Your task to perform on an android device: toggle location history Image 0: 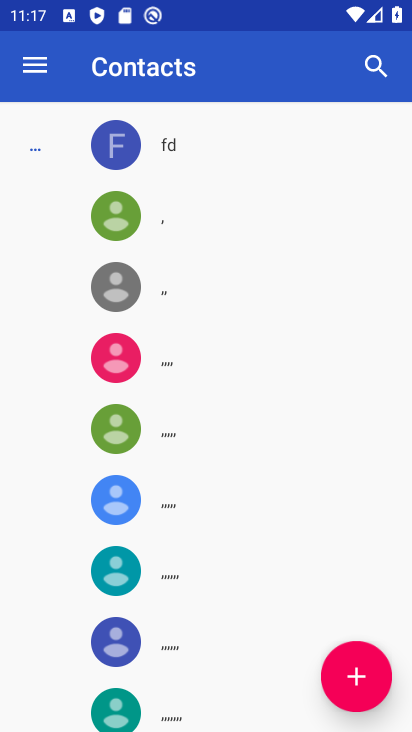
Step 0: press home button
Your task to perform on an android device: toggle location history Image 1: 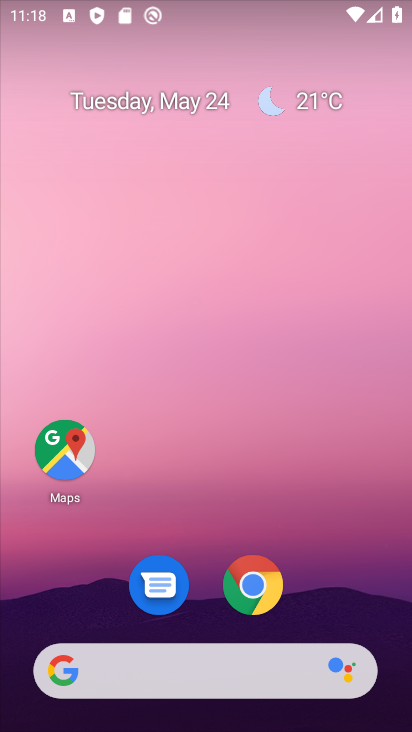
Step 1: drag from (206, 518) to (215, 10)
Your task to perform on an android device: toggle location history Image 2: 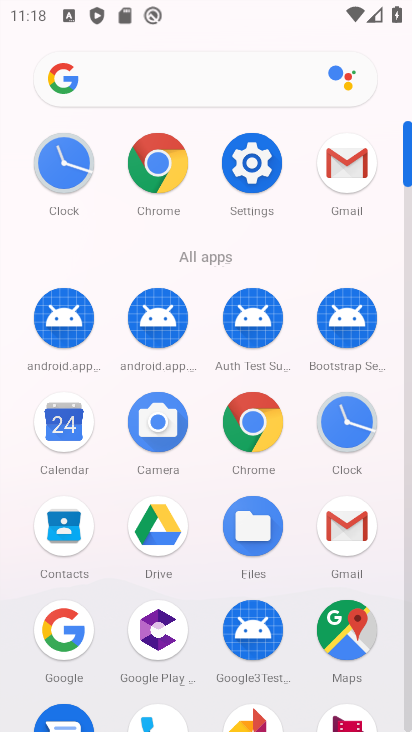
Step 2: click (256, 153)
Your task to perform on an android device: toggle location history Image 3: 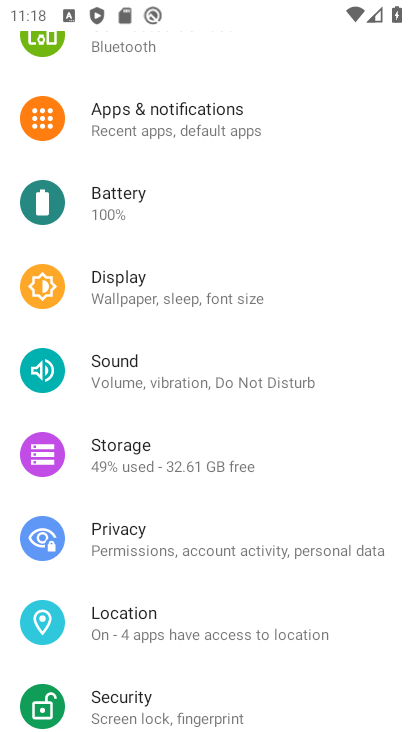
Step 3: click (211, 622)
Your task to perform on an android device: toggle location history Image 4: 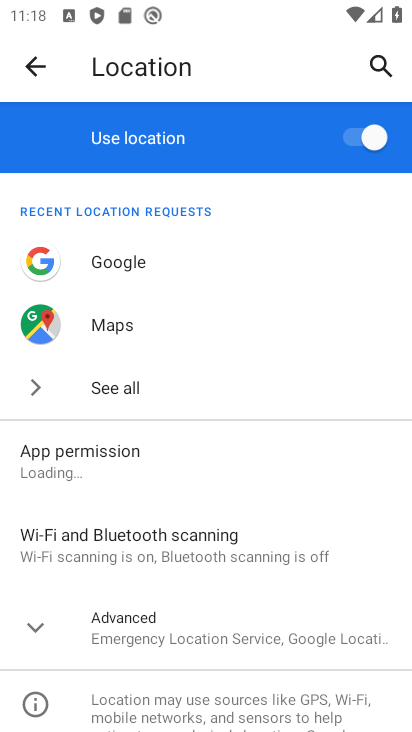
Step 4: drag from (276, 499) to (313, 203)
Your task to perform on an android device: toggle location history Image 5: 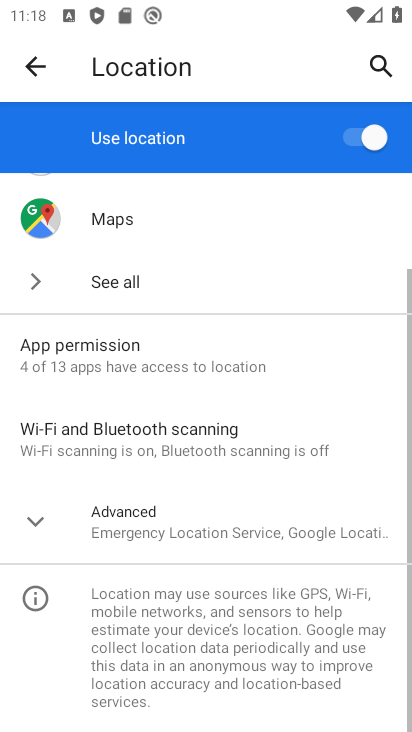
Step 5: click (39, 521)
Your task to perform on an android device: toggle location history Image 6: 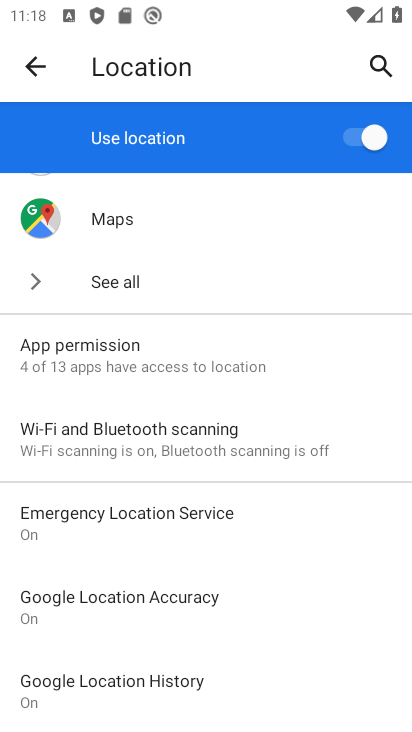
Step 6: click (202, 694)
Your task to perform on an android device: toggle location history Image 7: 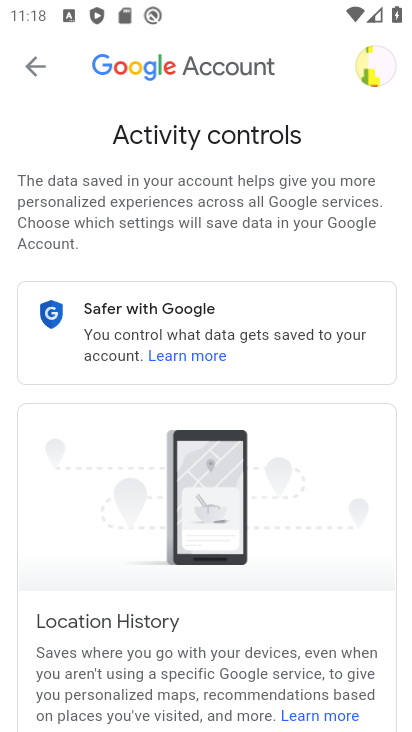
Step 7: drag from (290, 513) to (322, 152)
Your task to perform on an android device: toggle location history Image 8: 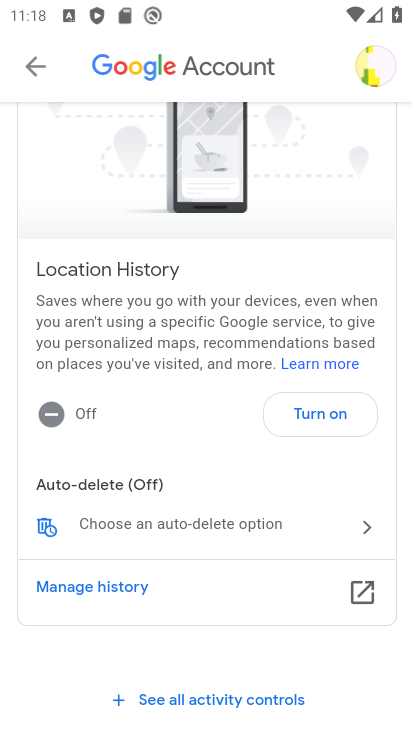
Step 8: click (321, 406)
Your task to perform on an android device: toggle location history Image 9: 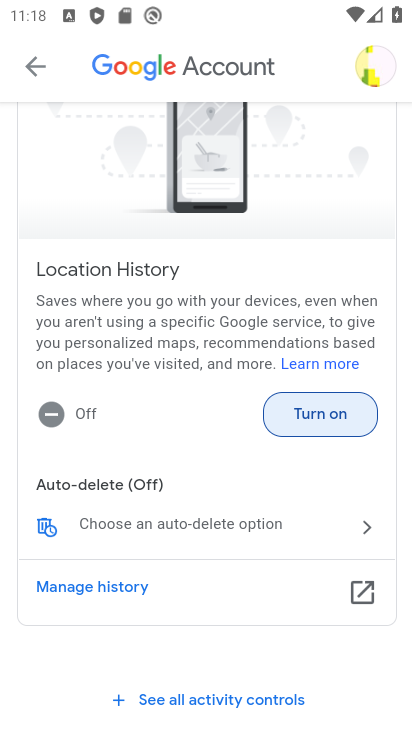
Step 9: click (321, 404)
Your task to perform on an android device: toggle location history Image 10: 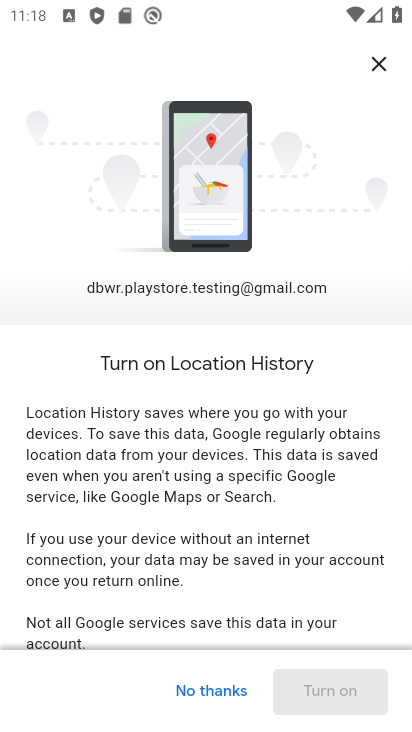
Step 10: drag from (269, 550) to (297, 13)
Your task to perform on an android device: toggle location history Image 11: 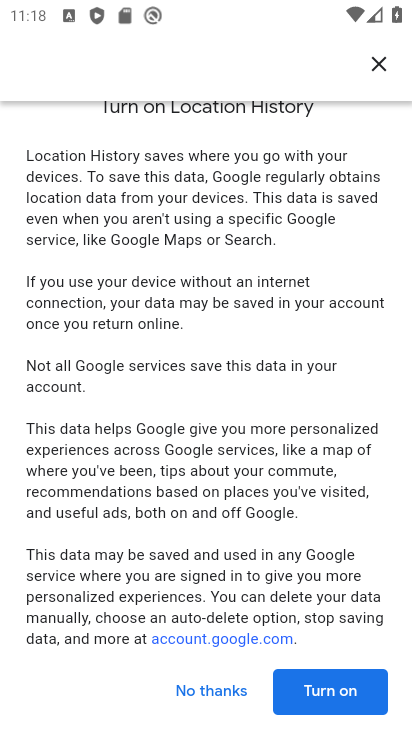
Step 11: click (336, 686)
Your task to perform on an android device: toggle location history Image 12: 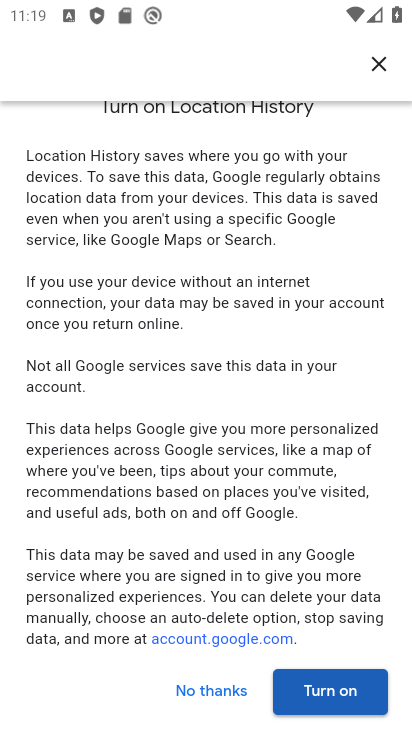
Step 12: click (336, 686)
Your task to perform on an android device: toggle location history Image 13: 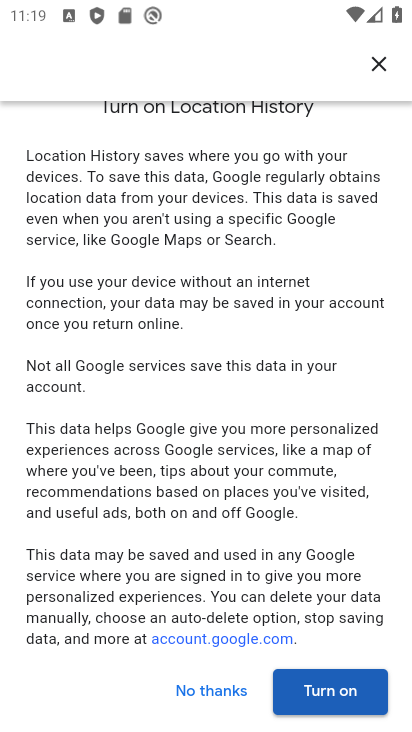
Step 13: click (336, 698)
Your task to perform on an android device: toggle location history Image 14: 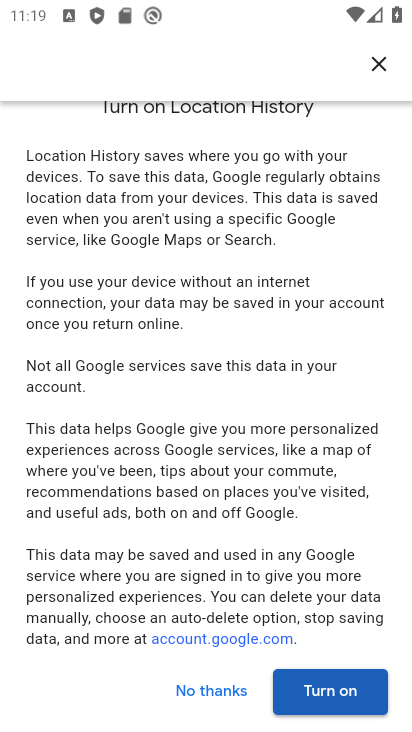
Step 14: click (338, 694)
Your task to perform on an android device: toggle location history Image 15: 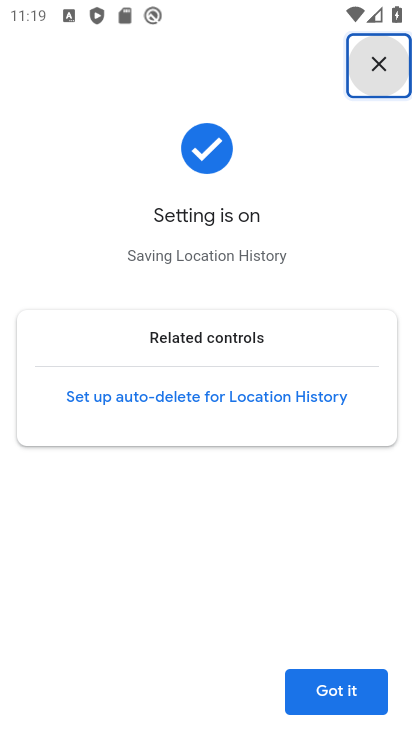
Step 15: click (338, 694)
Your task to perform on an android device: toggle location history Image 16: 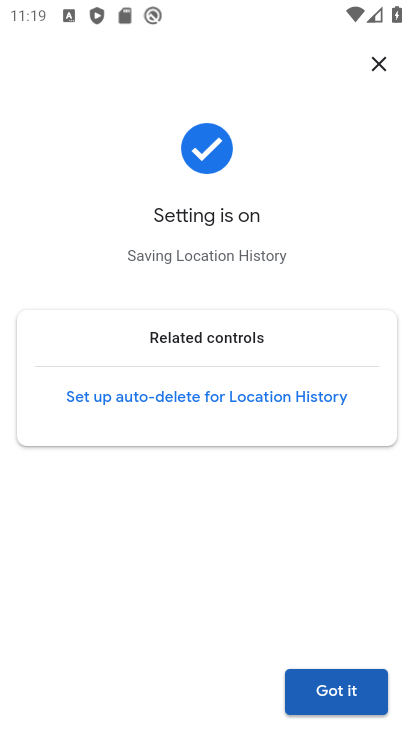
Step 16: click (341, 686)
Your task to perform on an android device: toggle location history Image 17: 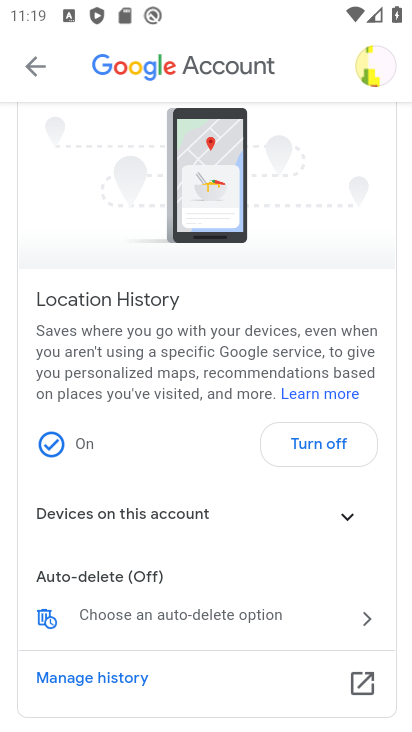
Step 17: task complete